Your task to perform on an android device: Open calendar and show me the second week of next month Image 0: 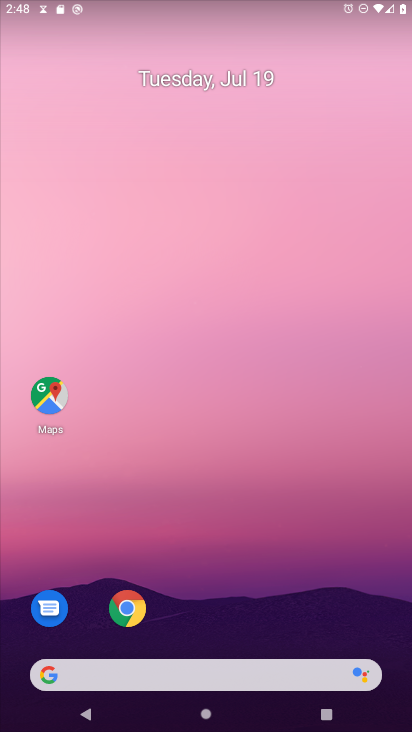
Step 0: drag from (283, 610) to (247, 132)
Your task to perform on an android device: Open calendar and show me the second week of next month Image 1: 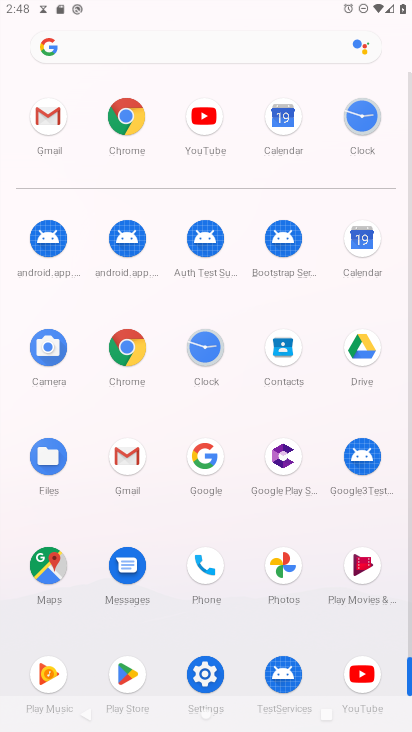
Step 1: click (354, 233)
Your task to perform on an android device: Open calendar and show me the second week of next month Image 2: 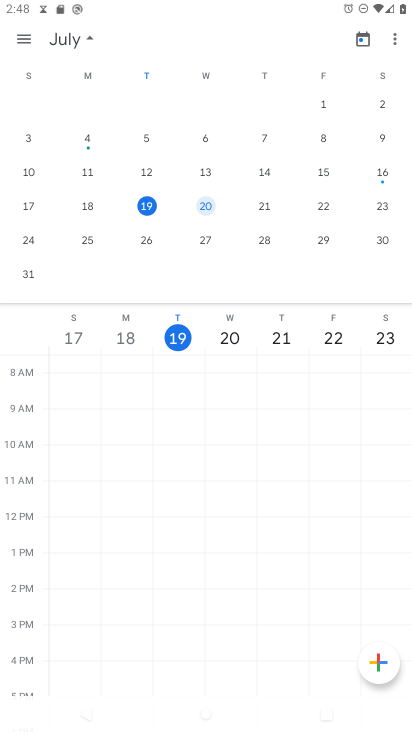
Step 2: drag from (348, 188) to (3, 208)
Your task to perform on an android device: Open calendar and show me the second week of next month Image 3: 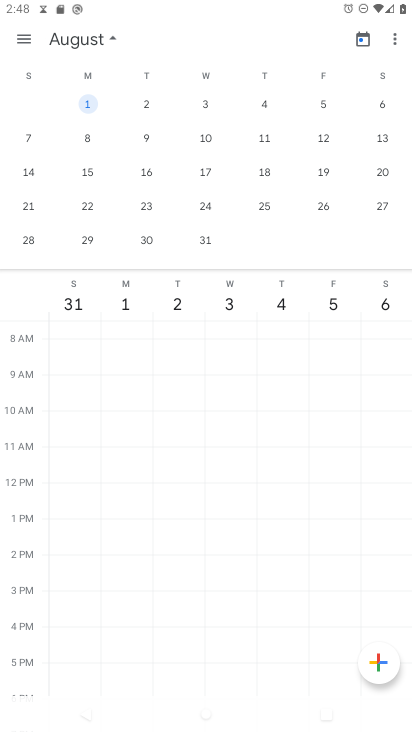
Step 3: click (208, 142)
Your task to perform on an android device: Open calendar and show me the second week of next month Image 4: 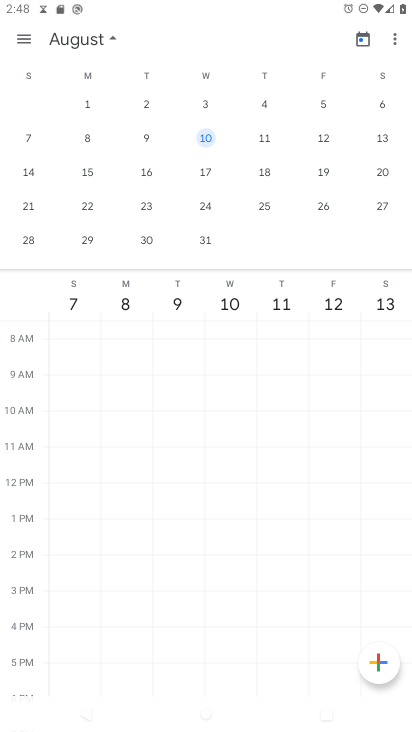
Step 4: task complete